Your task to perform on an android device: turn on sleep mode Image 0: 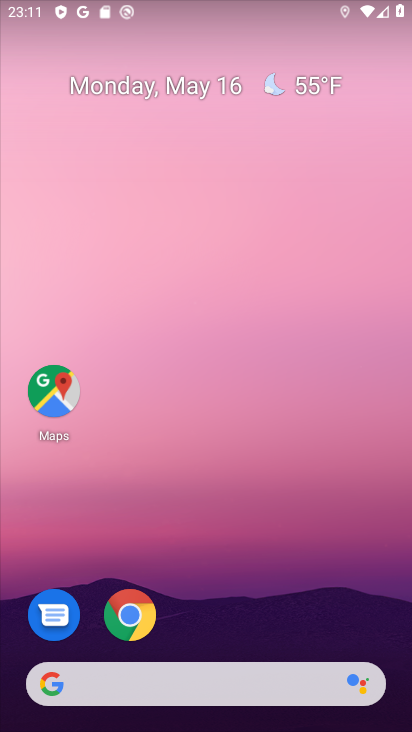
Step 0: drag from (230, 640) to (237, 61)
Your task to perform on an android device: turn on sleep mode Image 1: 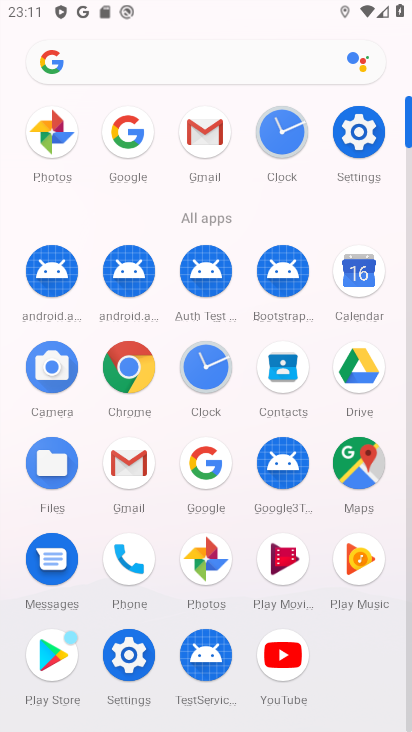
Step 1: click (356, 129)
Your task to perform on an android device: turn on sleep mode Image 2: 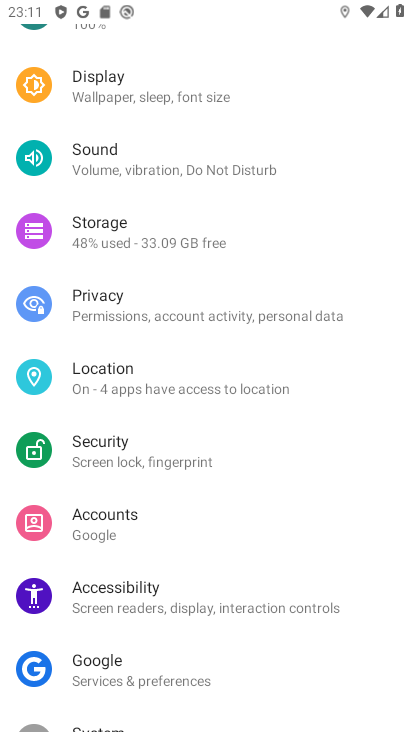
Step 2: click (152, 118)
Your task to perform on an android device: turn on sleep mode Image 3: 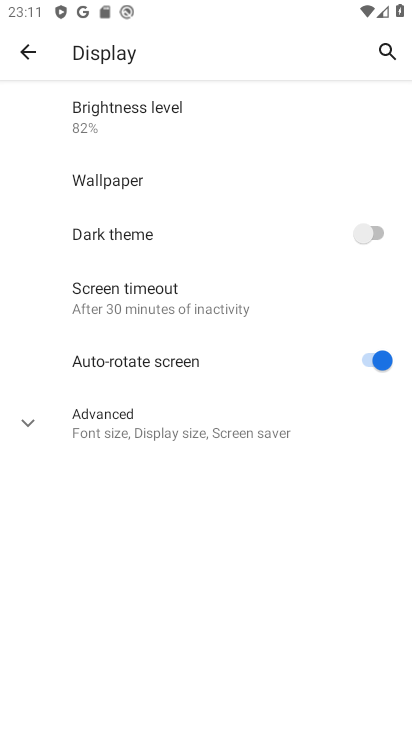
Step 3: task complete